Your task to perform on an android device: Play the last video I watched on Youtube Image 0: 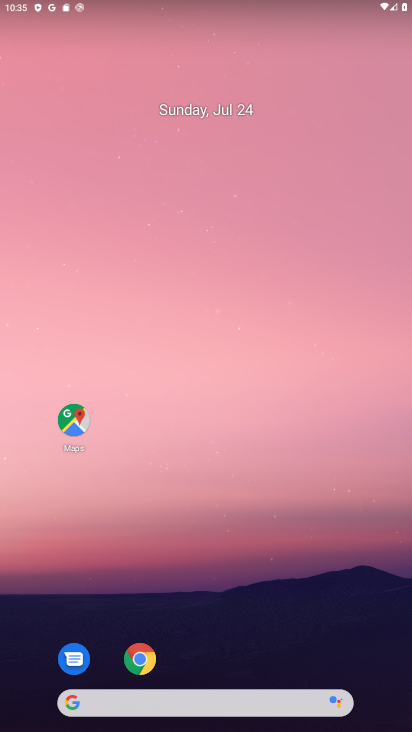
Step 0: drag from (176, 644) to (161, 143)
Your task to perform on an android device: Play the last video I watched on Youtube Image 1: 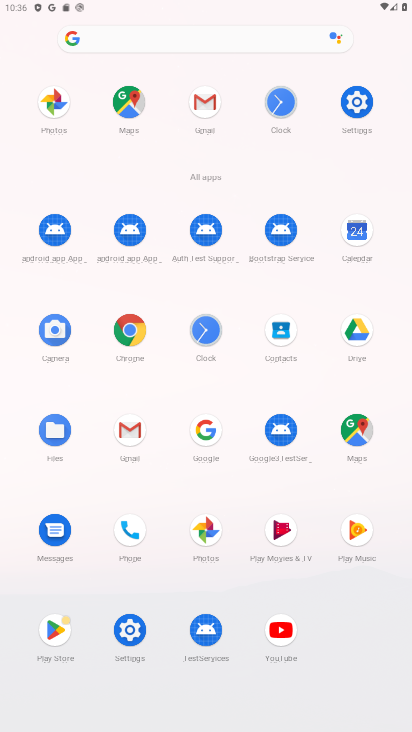
Step 1: click (278, 618)
Your task to perform on an android device: Play the last video I watched on Youtube Image 2: 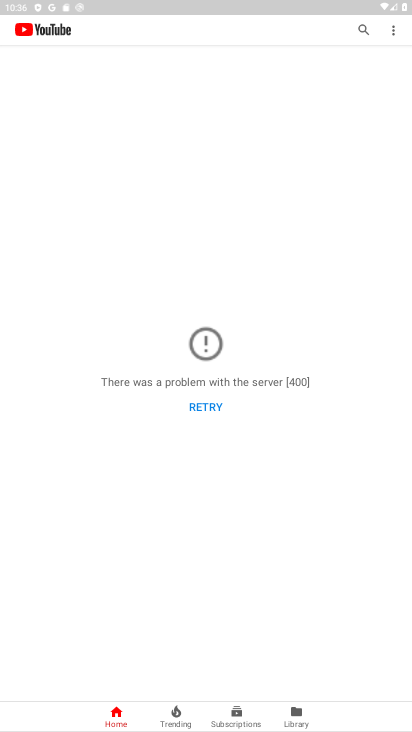
Step 2: click (358, 28)
Your task to perform on an android device: Play the last video I watched on Youtube Image 3: 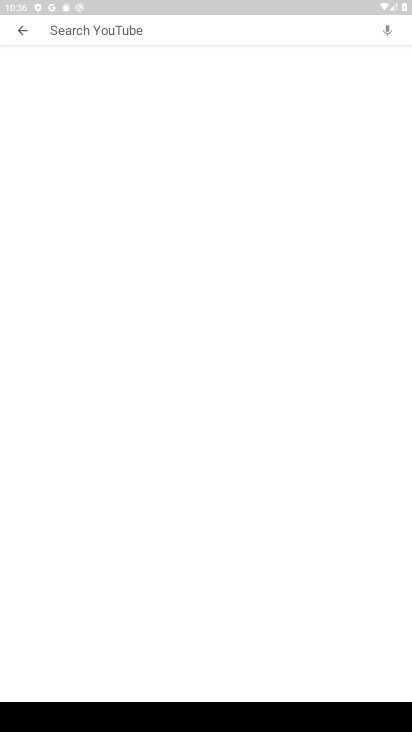
Step 3: click (119, 21)
Your task to perform on an android device: Play the last video I watched on Youtube Image 4: 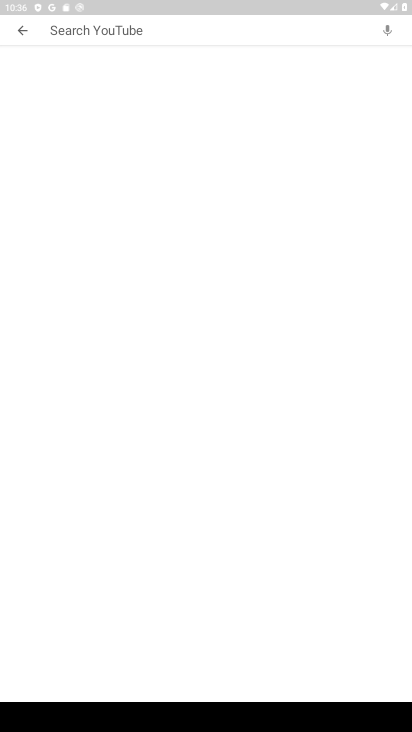
Step 4: type "india love "
Your task to perform on an android device: Play the last video I watched on Youtube Image 5: 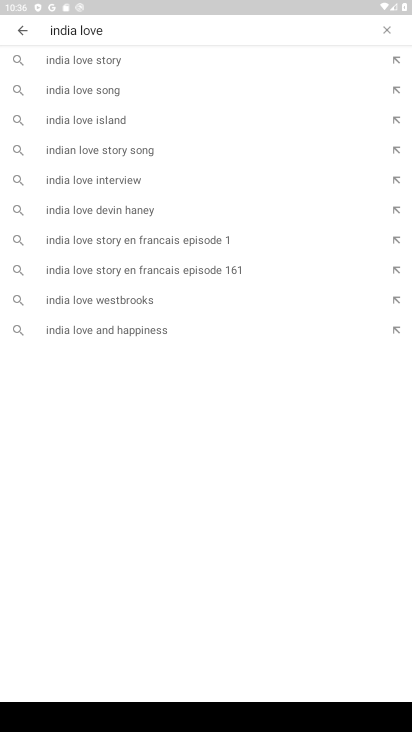
Step 5: click (113, 55)
Your task to perform on an android device: Play the last video I watched on Youtube Image 6: 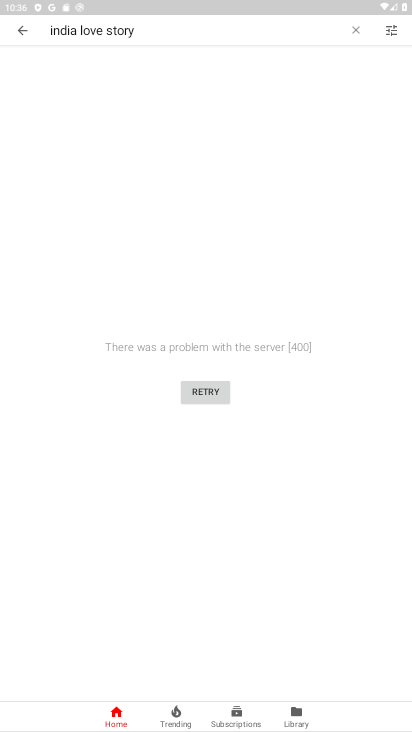
Step 6: task complete